Your task to perform on an android device: Show me productivity apps on the Play Store Image 0: 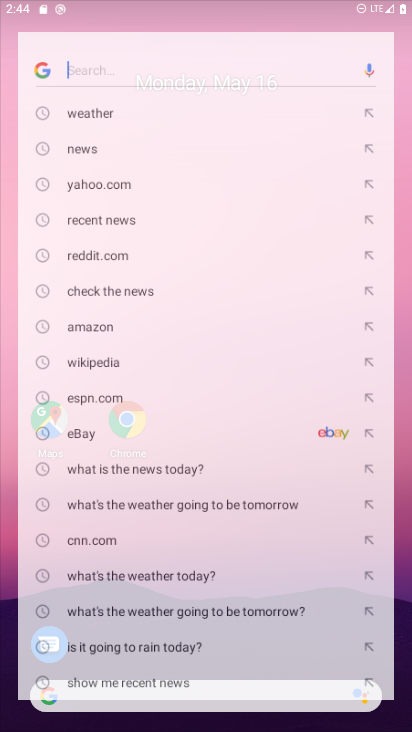
Step 0: drag from (226, 477) to (311, 171)
Your task to perform on an android device: Show me productivity apps on the Play Store Image 1: 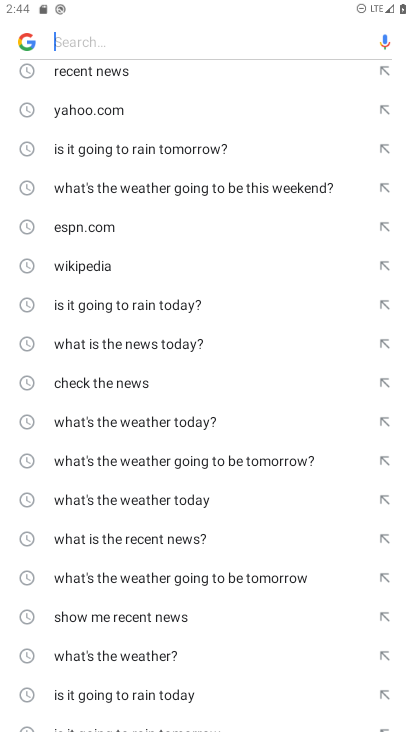
Step 1: drag from (160, 585) to (279, 33)
Your task to perform on an android device: Show me productivity apps on the Play Store Image 2: 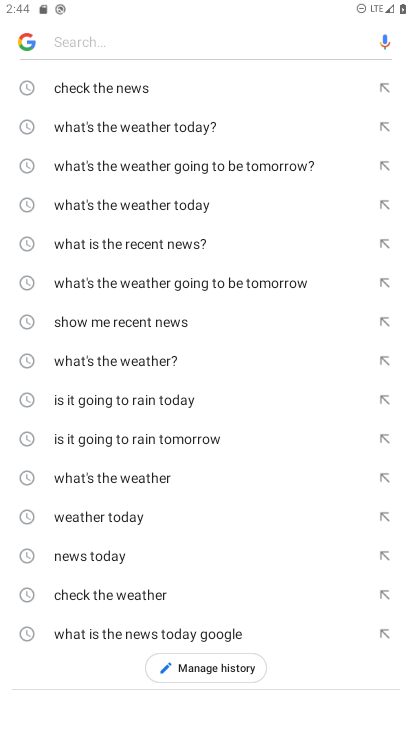
Step 2: press home button
Your task to perform on an android device: Show me productivity apps on the Play Store Image 3: 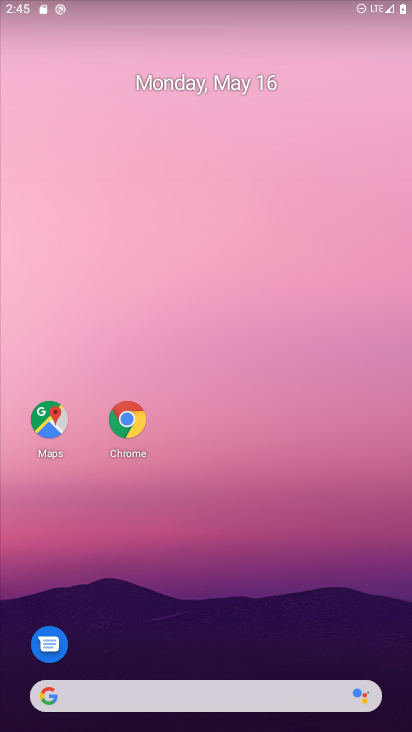
Step 3: drag from (152, 572) to (240, 210)
Your task to perform on an android device: Show me productivity apps on the Play Store Image 4: 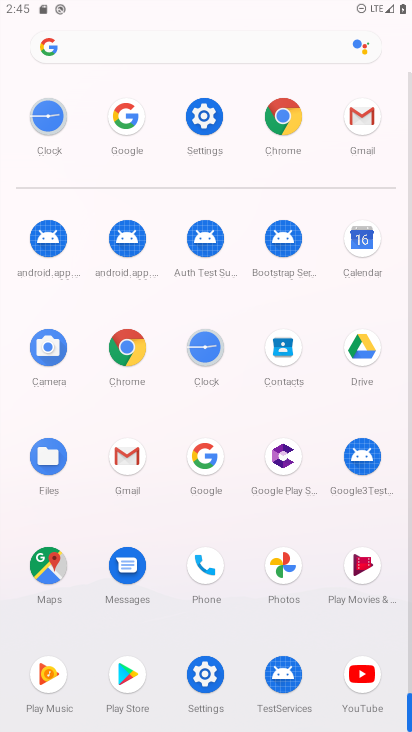
Step 4: click (126, 677)
Your task to perform on an android device: Show me productivity apps on the Play Store Image 5: 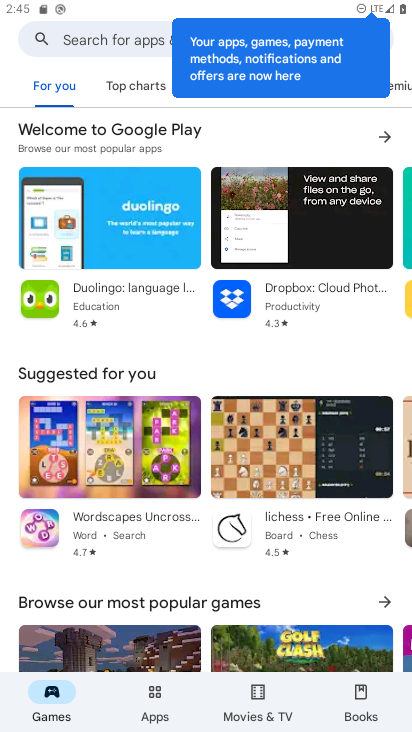
Step 5: task complete